Your task to perform on an android device: Open Reddit.com Image 0: 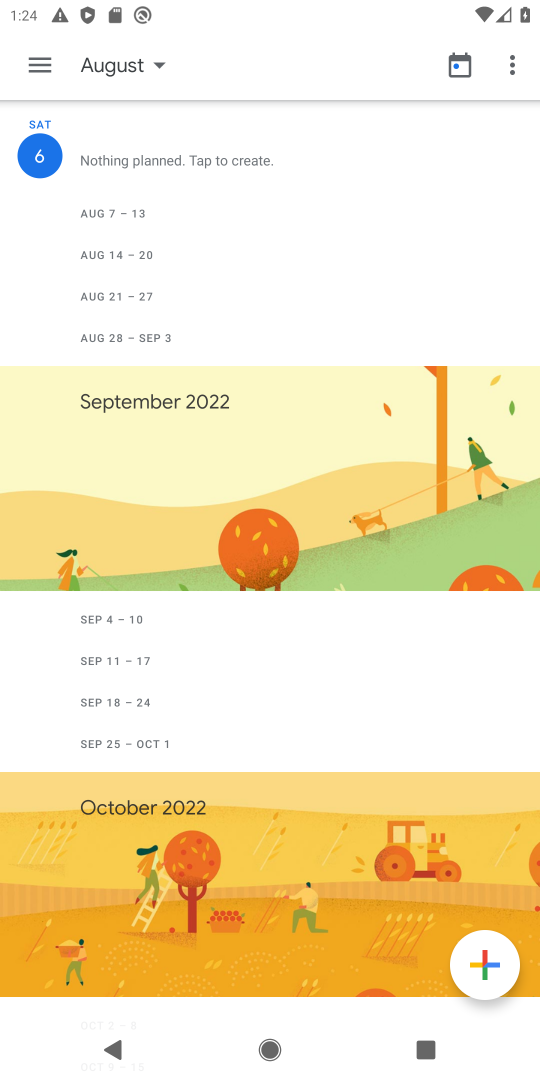
Step 0: press home button
Your task to perform on an android device: Open Reddit.com Image 1: 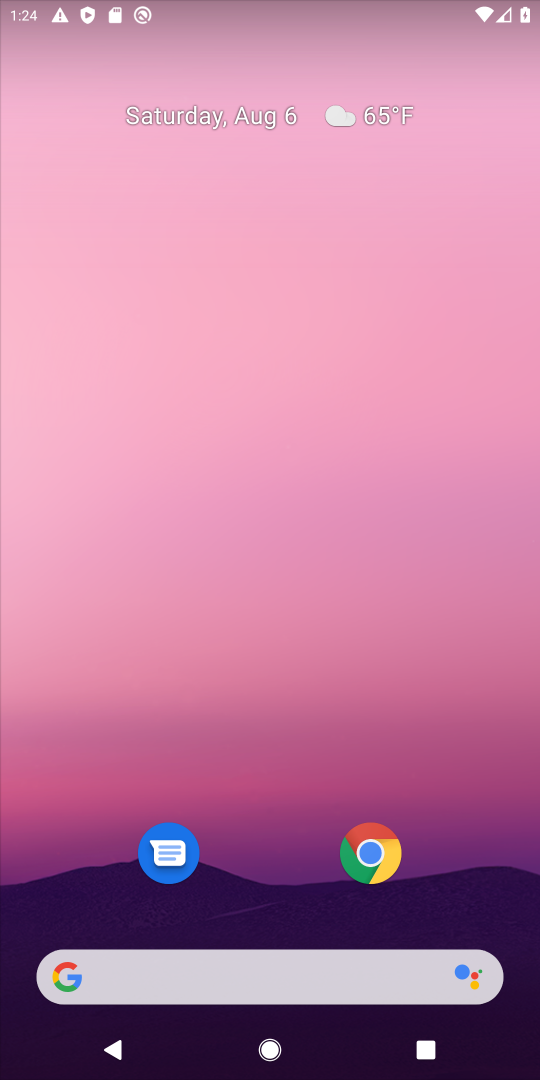
Step 1: drag from (506, 920) to (485, 812)
Your task to perform on an android device: Open Reddit.com Image 2: 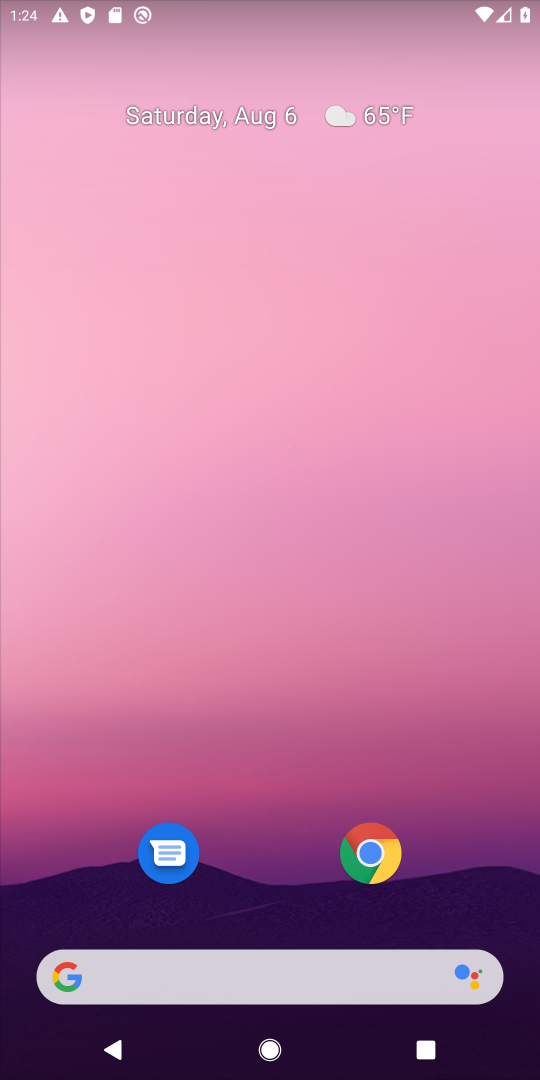
Step 2: click (366, 856)
Your task to perform on an android device: Open Reddit.com Image 3: 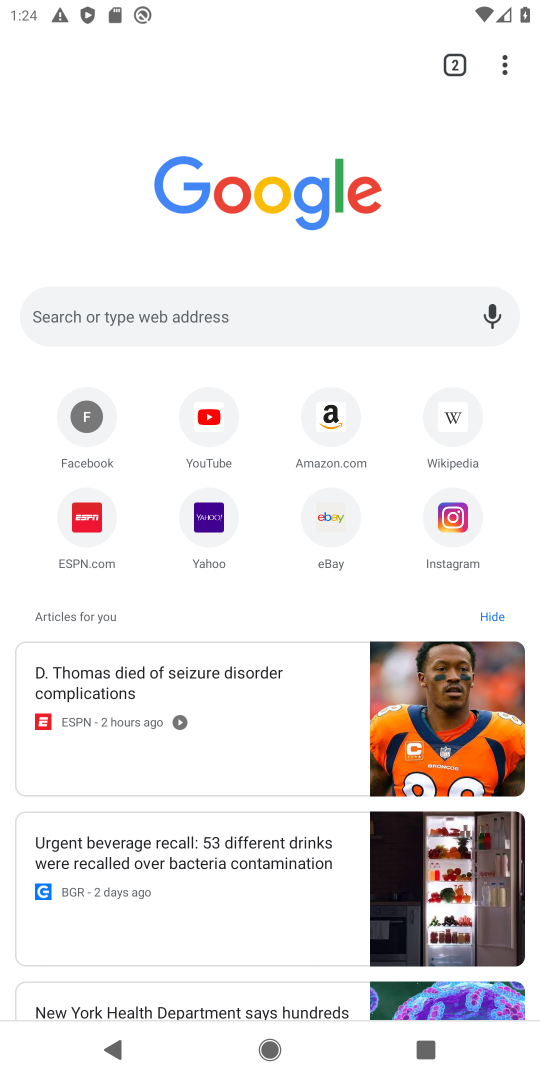
Step 3: click (179, 313)
Your task to perform on an android device: Open Reddit.com Image 4: 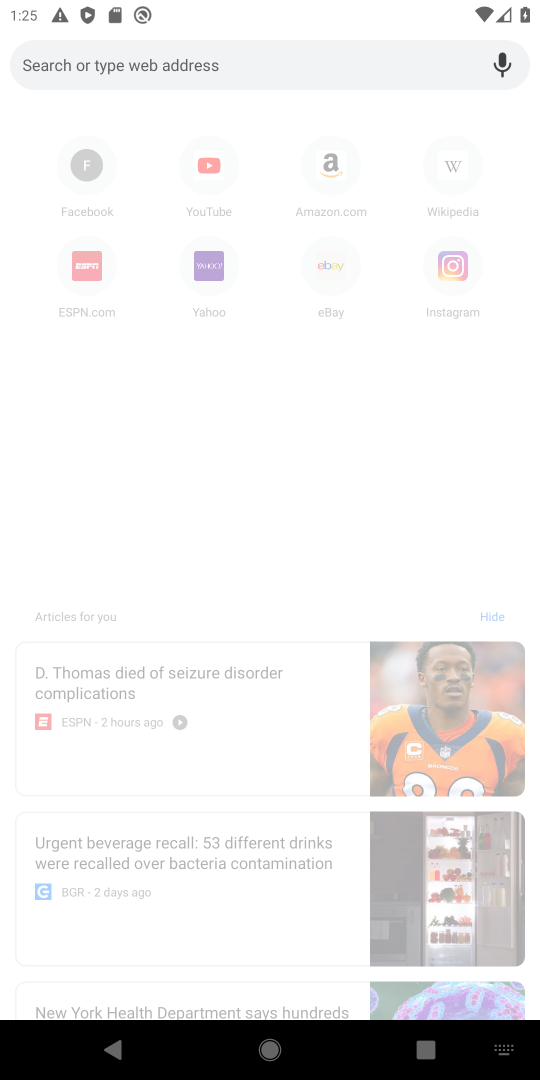
Step 4: type "Reddit.com"
Your task to perform on an android device: Open Reddit.com Image 5: 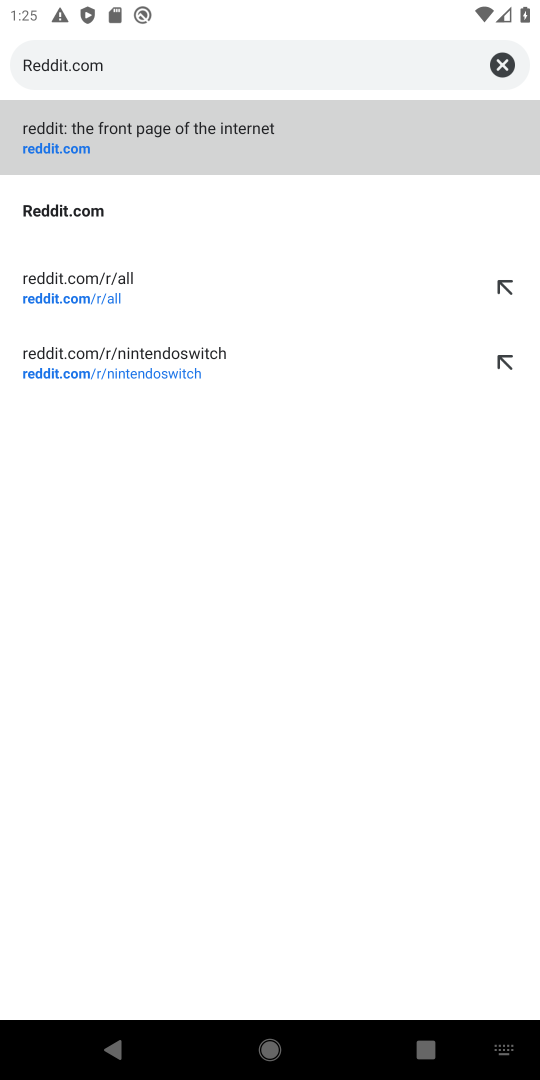
Step 5: click (85, 126)
Your task to perform on an android device: Open Reddit.com Image 6: 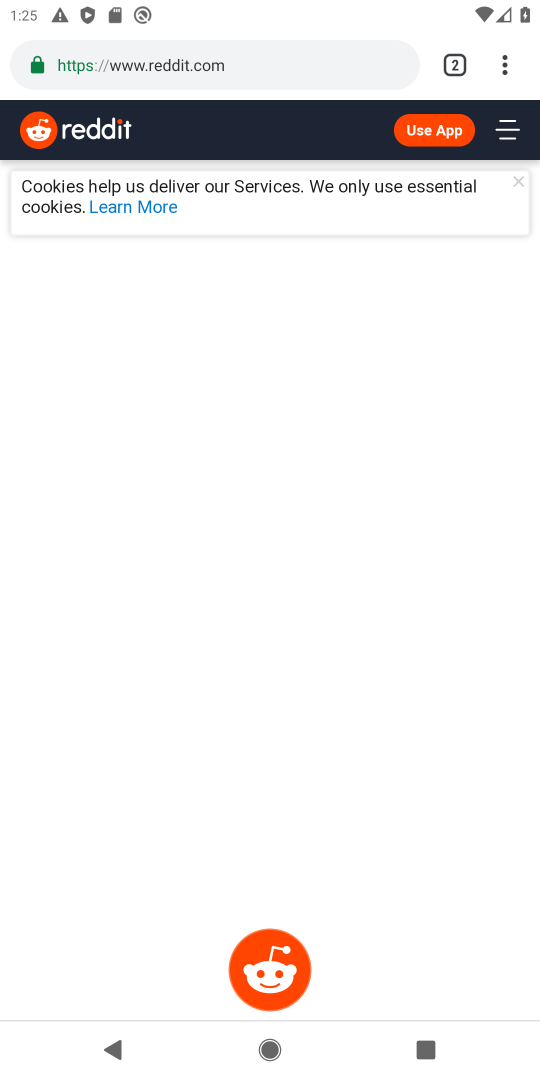
Step 6: task complete